Your task to perform on an android device: Open Google Chrome and click the shortcut for Amazon.com Image 0: 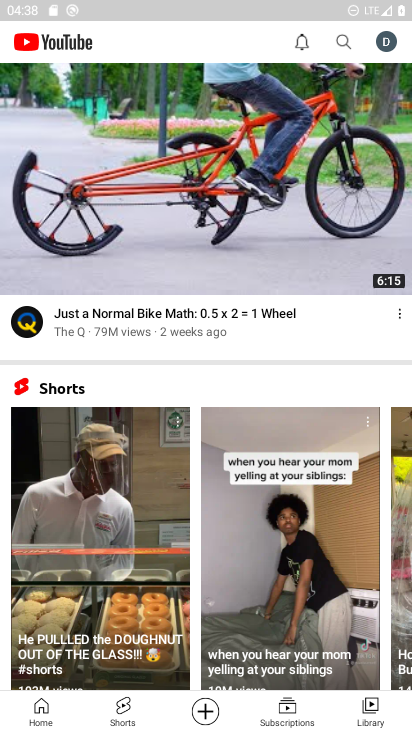
Step 0: press home button
Your task to perform on an android device: Open Google Chrome and click the shortcut for Amazon.com Image 1: 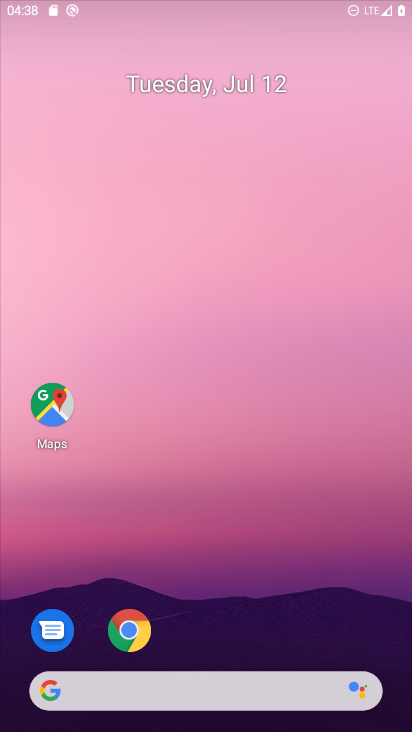
Step 1: drag from (260, 662) to (374, 14)
Your task to perform on an android device: Open Google Chrome and click the shortcut for Amazon.com Image 2: 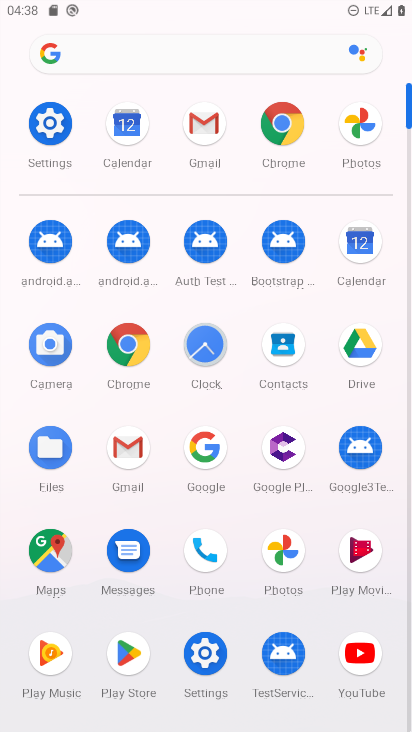
Step 2: click (122, 348)
Your task to perform on an android device: Open Google Chrome and click the shortcut for Amazon.com Image 3: 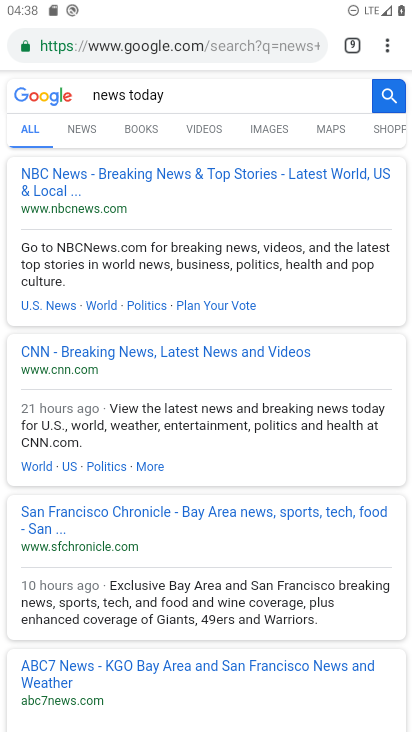
Step 3: drag from (384, 38) to (250, 89)
Your task to perform on an android device: Open Google Chrome and click the shortcut for Amazon.com Image 4: 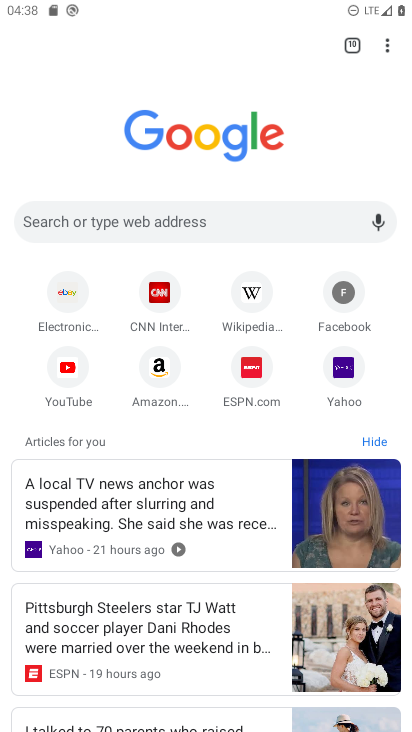
Step 4: click (168, 366)
Your task to perform on an android device: Open Google Chrome and click the shortcut for Amazon.com Image 5: 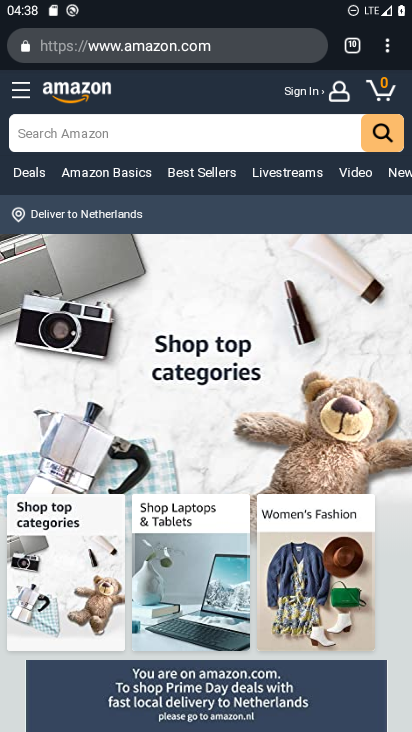
Step 5: drag from (375, 44) to (219, 481)
Your task to perform on an android device: Open Google Chrome and click the shortcut for Amazon.com Image 6: 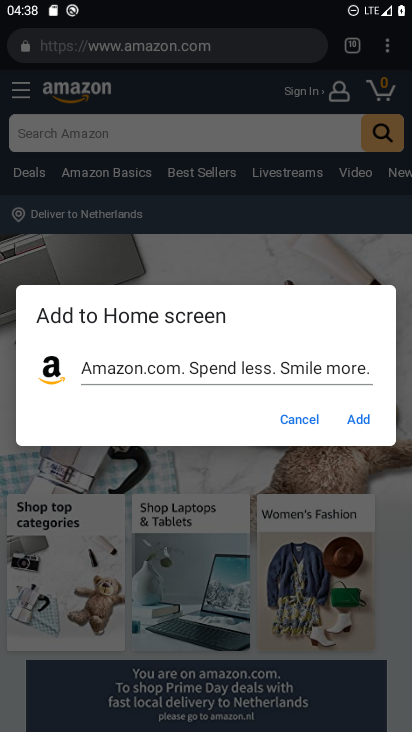
Step 6: click (360, 415)
Your task to perform on an android device: Open Google Chrome and click the shortcut for Amazon.com Image 7: 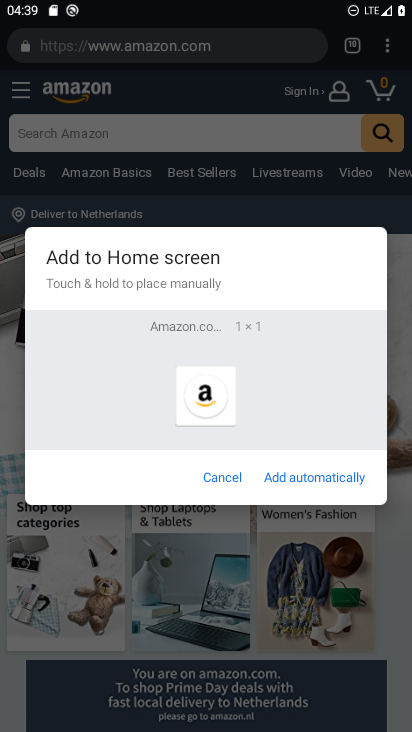
Step 7: click (306, 476)
Your task to perform on an android device: Open Google Chrome and click the shortcut for Amazon.com Image 8: 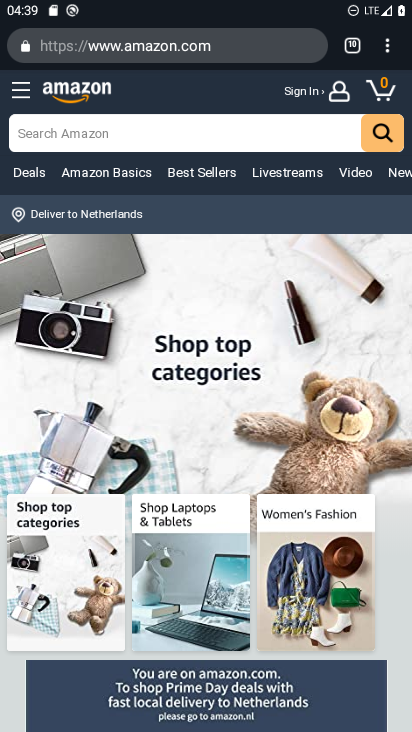
Step 8: task complete